Your task to perform on an android device: Open the calendar and show me this week's events? Image 0: 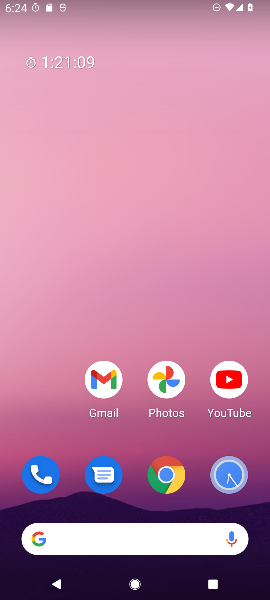
Step 0: press home button
Your task to perform on an android device: Open the calendar and show me this week's events? Image 1: 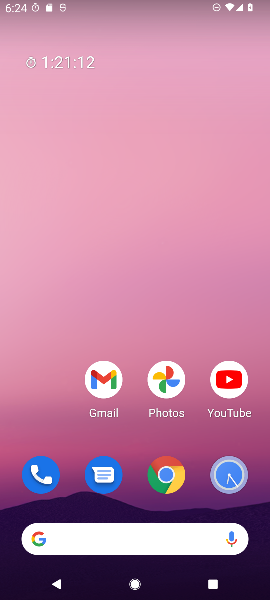
Step 1: drag from (23, 351) to (20, 152)
Your task to perform on an android device: Open the calendar and show me this week's events? Image 2: 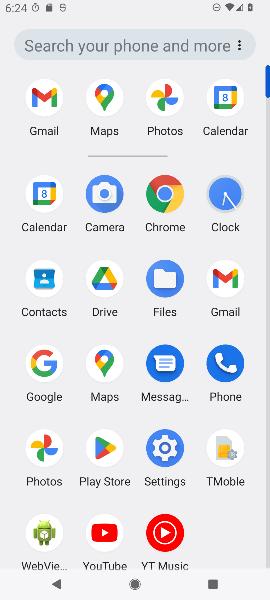
Step 2: click (40, 194)
Your task to perform on an android device: Open the calendar and show me this week's events? Image 3: 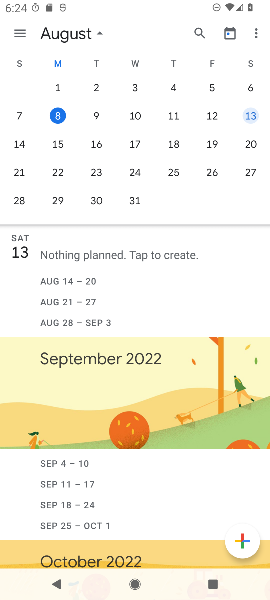
Step 3: click (57, 116)
Your task to perform on an android device: Open the calendar and show me this week's events? Image 4: 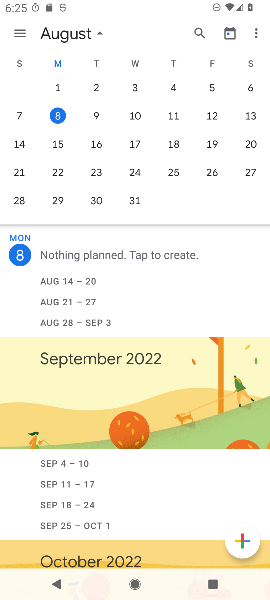
Step 4: task complete